Your task to perform on an android device: install app "Pandora - Music & Podcasts" Image 0: 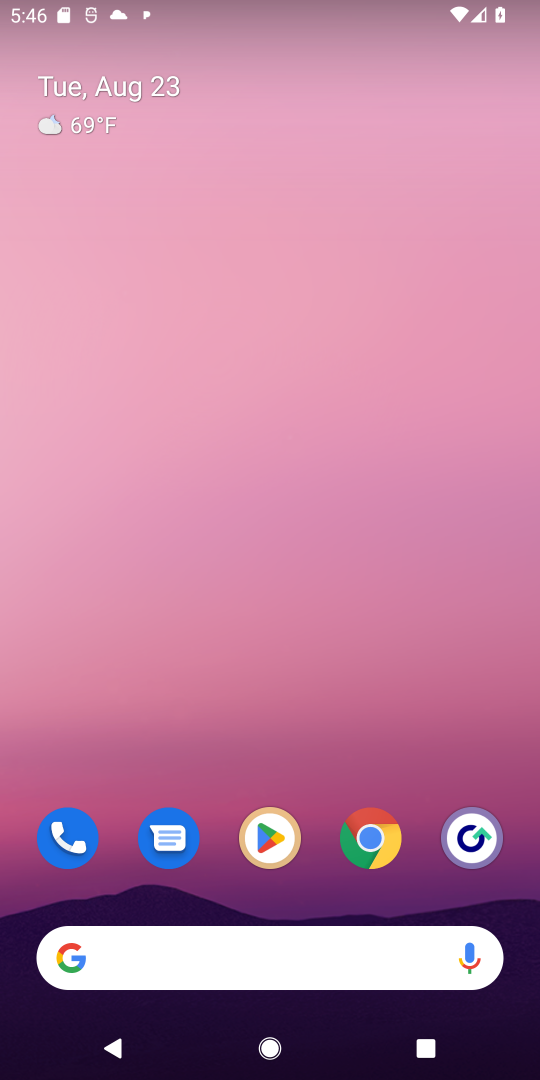
Step 0: click (272, 844)
Your task to perform on an android device: install app "Pandora - Music & Podcasts" Image 1: 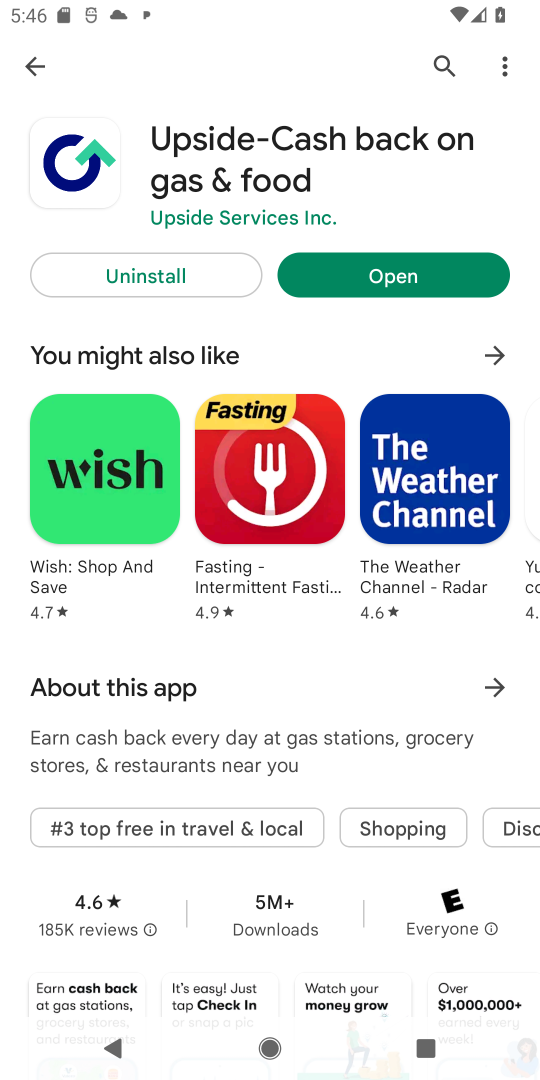
Step 1: click (445, 57)
Your task to perform on an android device: install app "Pandora - Music & Podcasts" Image 2: 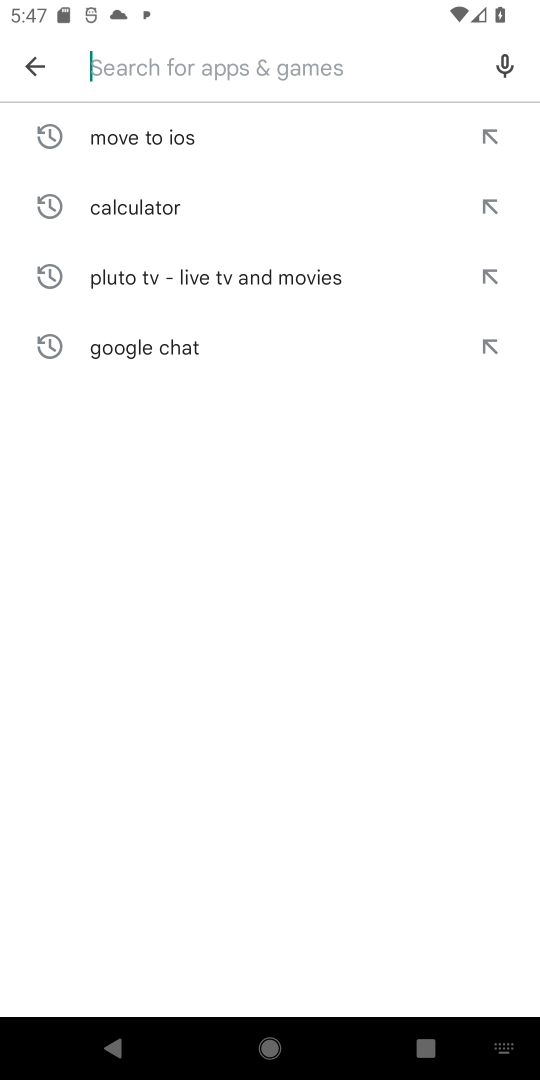
Step 2: type "Pandora - Music & Podcasts"
Your task to perform on an android device: install app "Pandora - Music & Podcasts" Image 3: 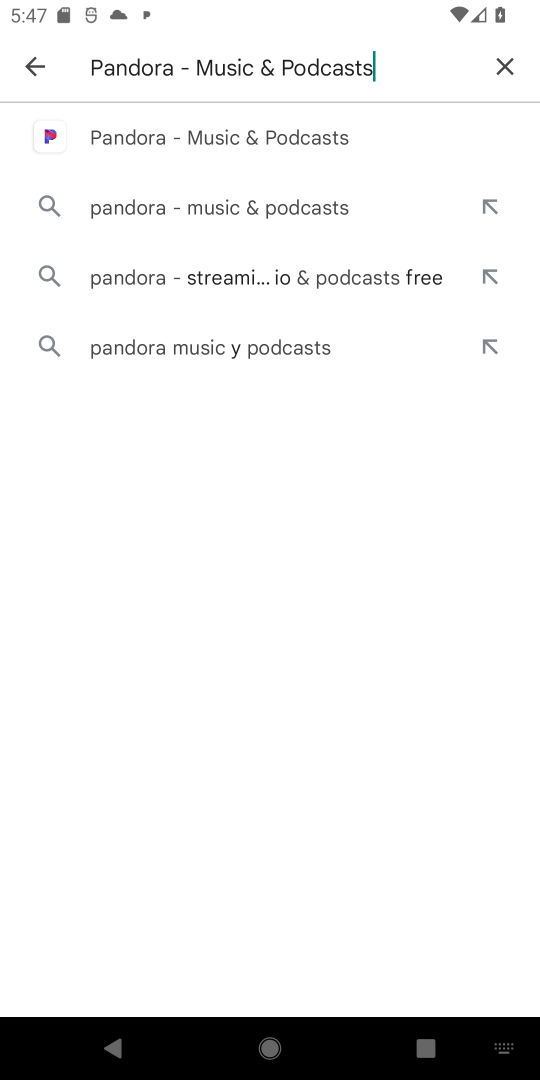
Step 3: click (327, 134)
Your task to perform on an android device: install app "Pandora - Music & Podcasts" Image 4: 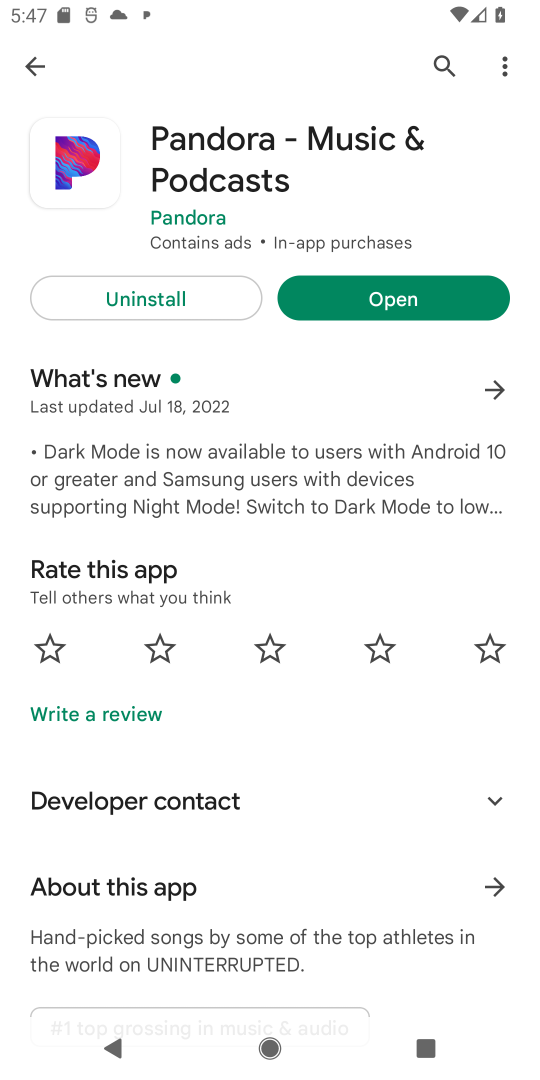
Step 4: task complete